Your task to perform on an android device: turn on sleep mode Image 0: 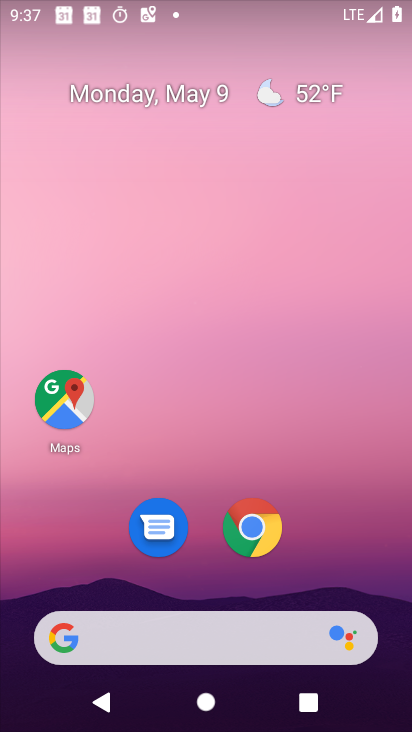
Step 0: drag from (351, 556) to (357, 169)
Your task to perform on an android device: turn on sleep mode Image 1: 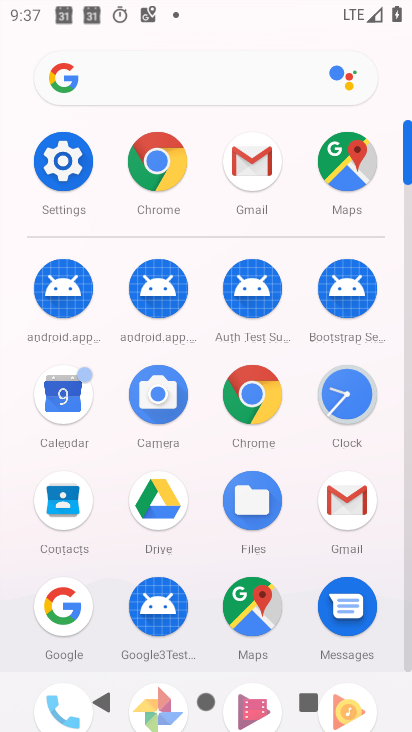
Step 1: click (47, 153)
Your task to perform on an android device: turn on sleep mode Image 2: 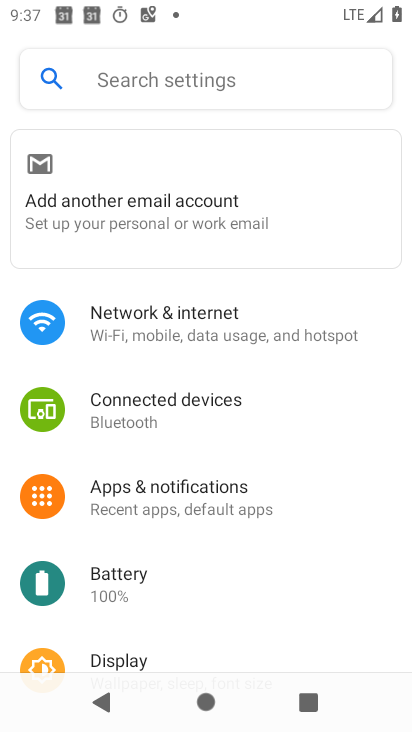
Step 2: click (213, 95)
Your task to perform on an android device: turn on sleep mode Image 3: 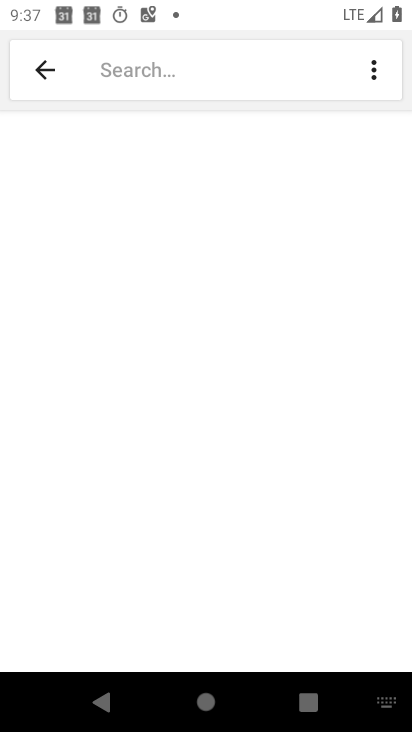
Step 3: type "sleep mode"
Your task to perform on an android device: turn on sleep mode Image 4: 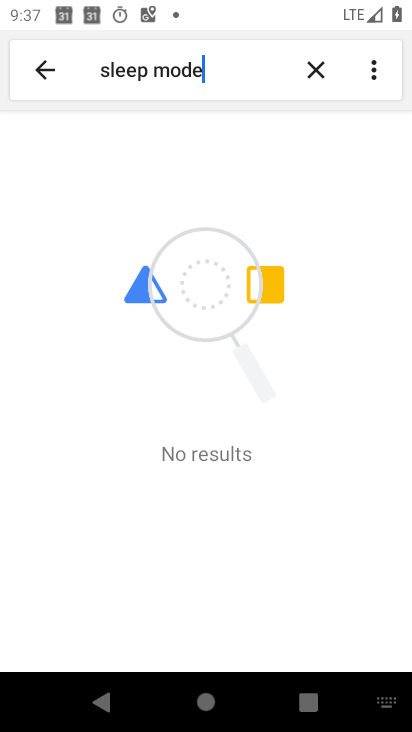
Step 4: task complete